Your task to perform on an android device: Open Maps and search for coffee Image 0: 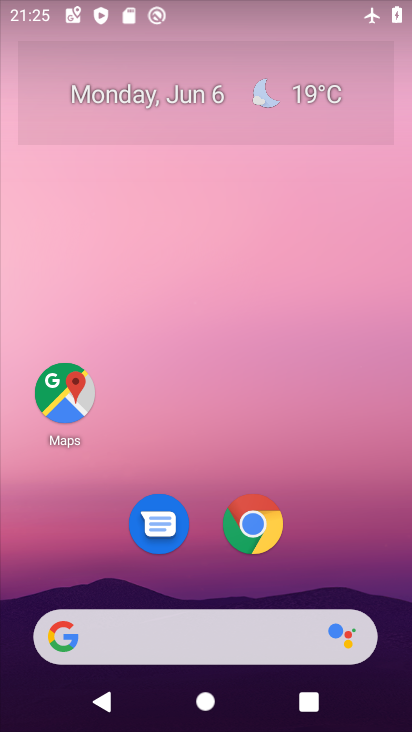
Step 0: click (48, 393)
Your task to perform on an android device: Open Maps and search for coffee Image 1: 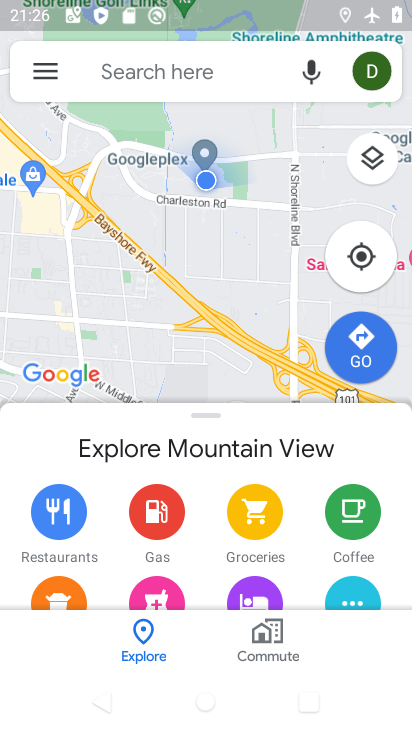
Step 1: click (202, 74)
Your task to perform on an android device: Open Maps and search for coffee Image 2: 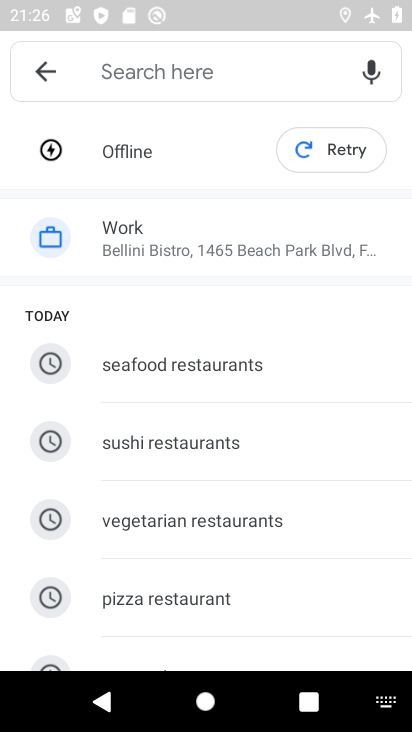
Step 2: drag from (207, 474) to (227, 190)
Your task to perform on an android device: Open Maps and search for coffee Image 3: 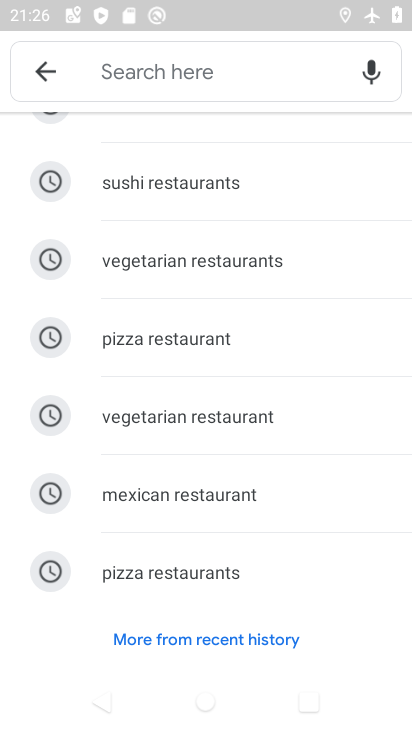
Step 3: drag from (220, 260) to (243, 594)
Your task to perform on an android device: Open Maps and search for coffee Image 4: 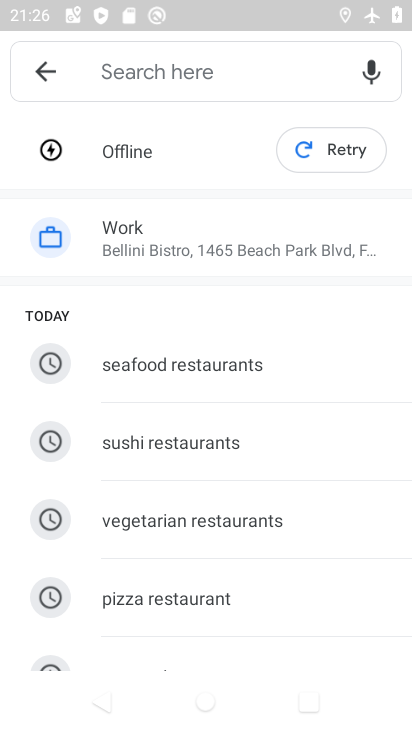
Step 4: click (254, 64)
Your task to perform on an android device: Open Maps and search for coffee Image 5: 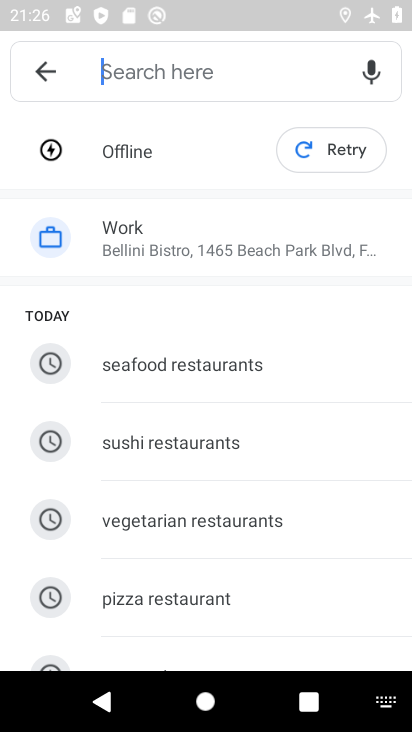
Step 5: type "coffee"
Your task to perform on an android device: Open Maps and search for coffee Image 6: 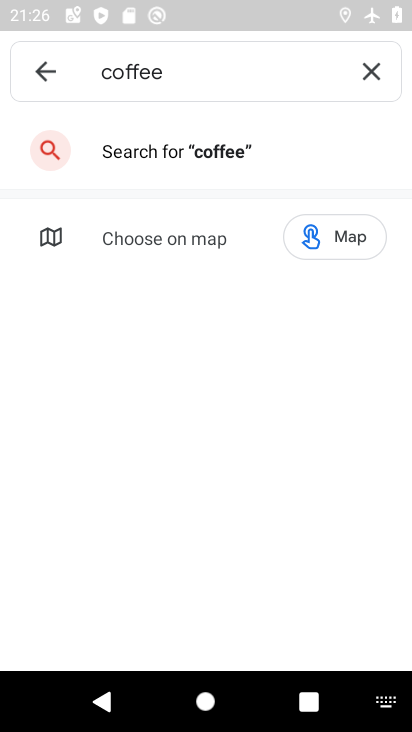
Step 6: click (223, 143)
Your task to perform on an android device: Open Maps and search for coffee Image 7: 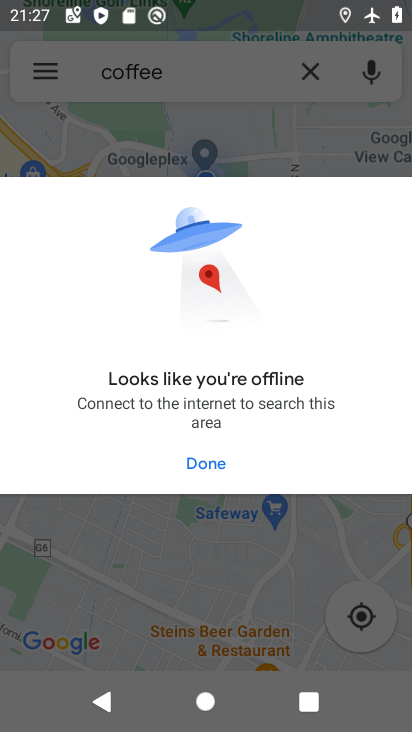
Step 7: task complete